Your task to perform on an android device: Add razer thresher to the cart on amazon, then select checkout. Image 0: 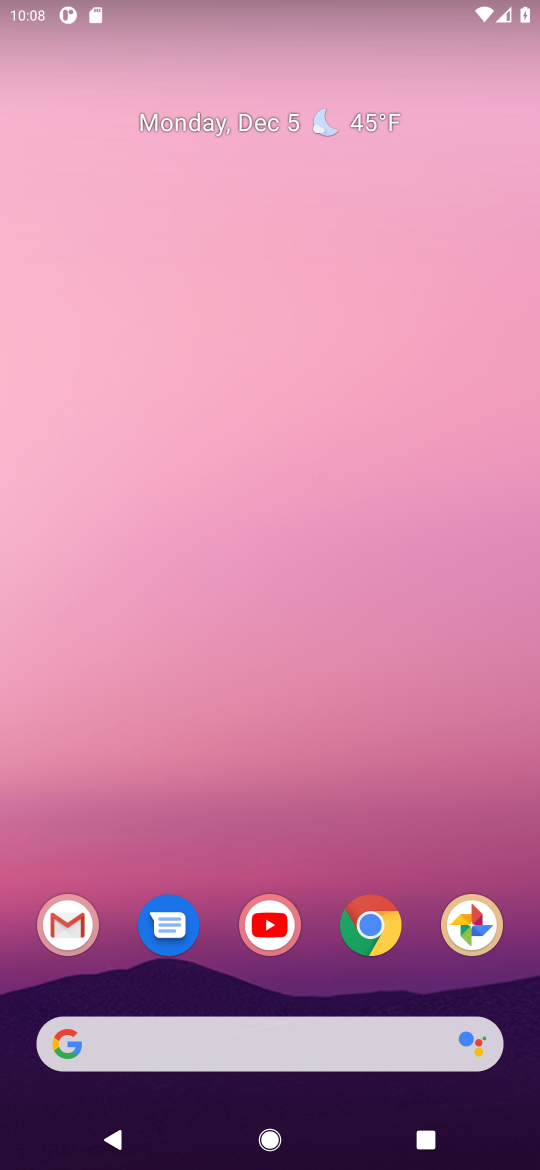
Step 0: click (368, 933)
Your task to perform on an android device: Add razer thresher to the cart on amazon, then select checkout. Image 1: 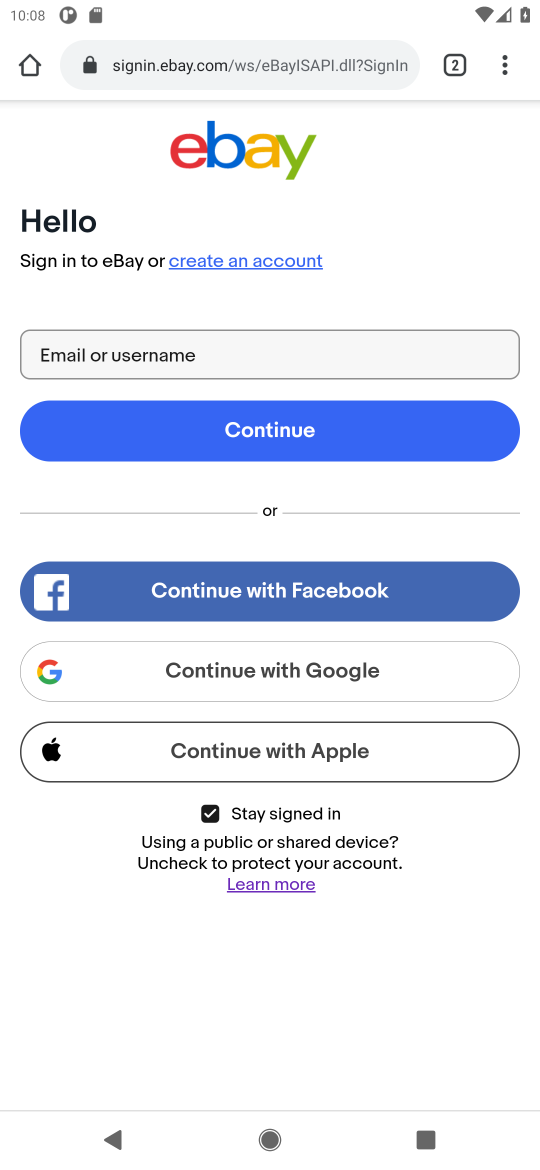
Step 1: click (215, 64)
Your task to perform on an android device: Add razer thresher to the cart on amazon, then select checkout. Image 2: 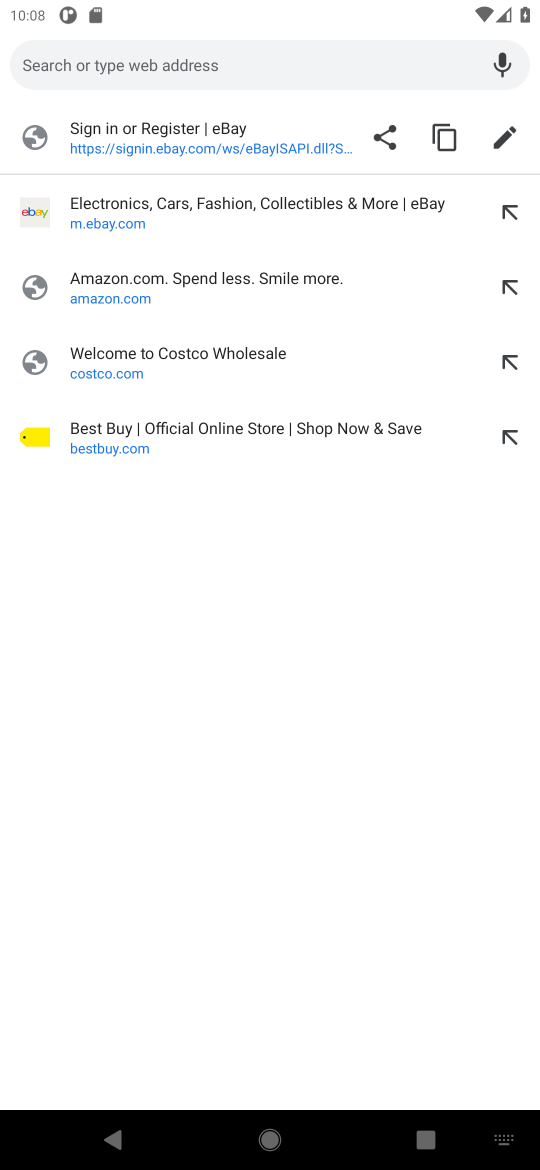
Step 2: click (81, 274)
Your task to perform on an android device: Add razer thresher to the cart on amazon, then select checkout. Image 3: 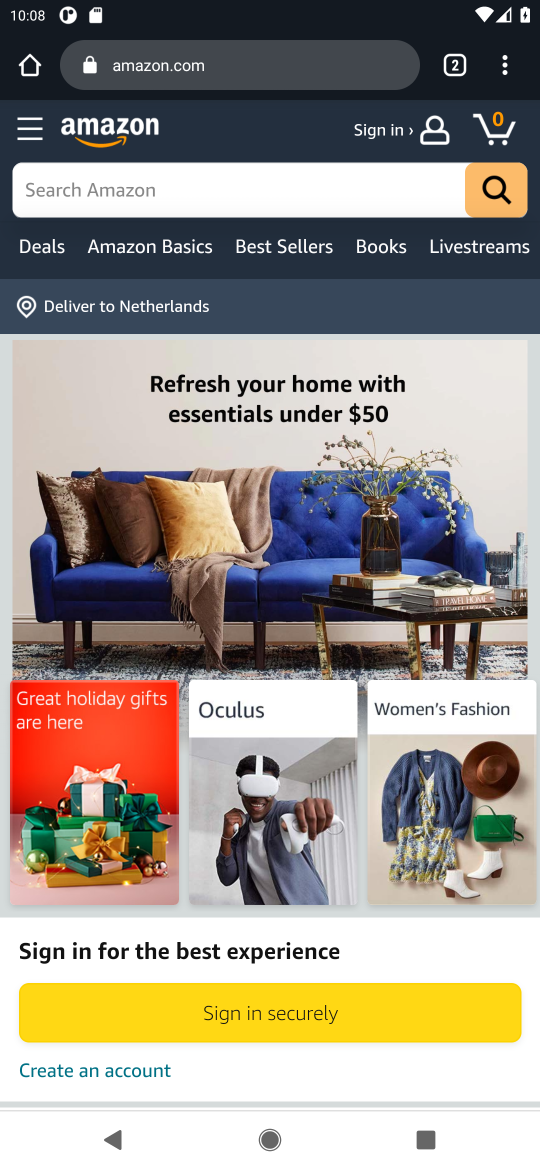
Step 3: click (111, 185)
Your task to perform on an android device: Add razer thresher to the cart on amazon, then select checkout. Image 4: 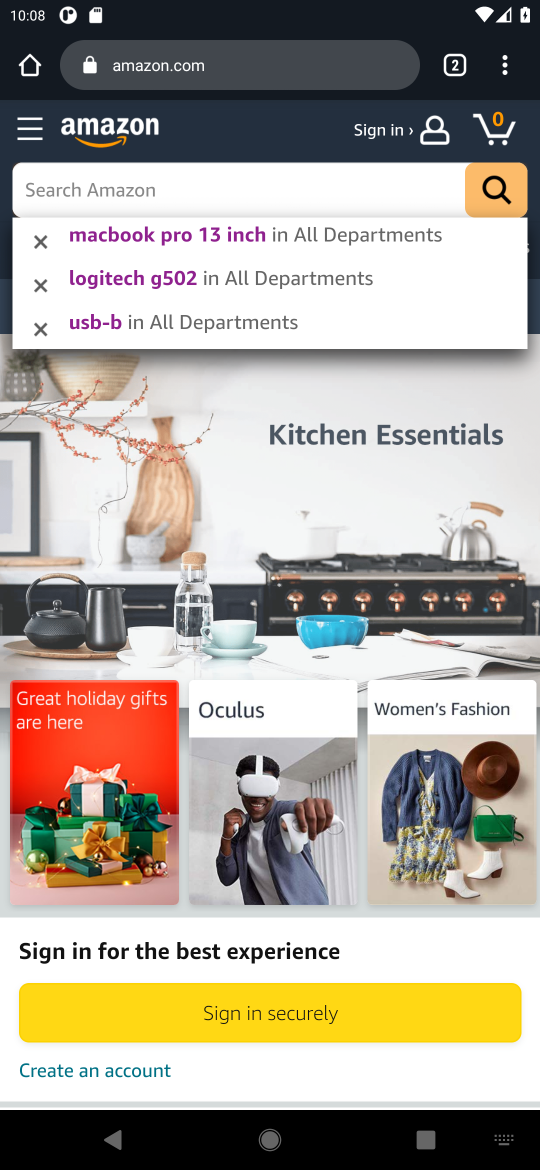
Step 4: type "razer thresher"
Your task to perform on an android device: Add razer thresher to the cart on amazon, then select checkout. Image 5: 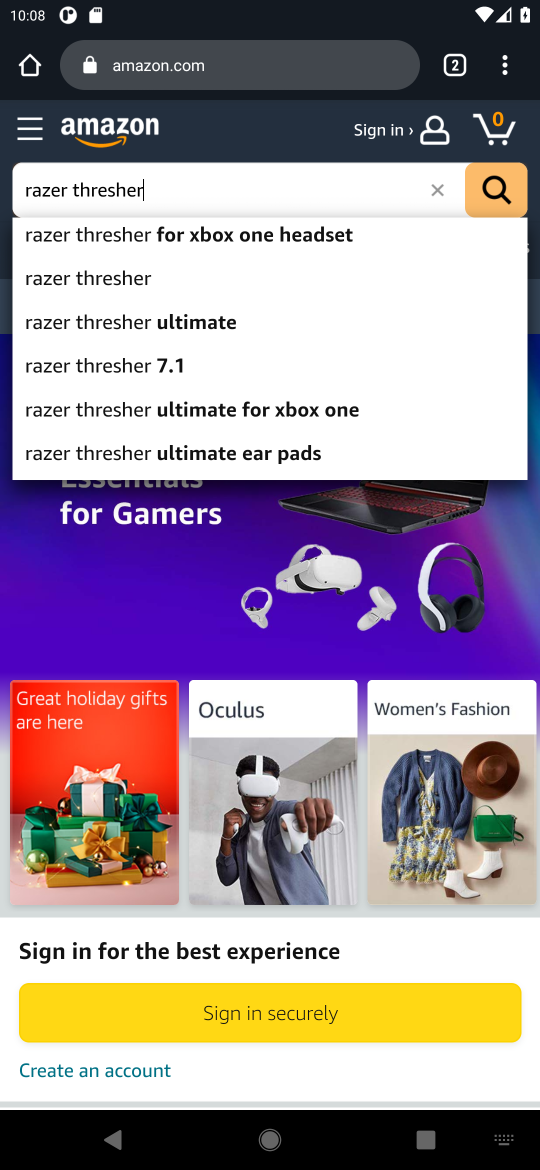
Step 5: click (68, 276)
Your task to perform on an android device: Add razer thresher to the cart on amazon, then select checkout. Image 6: 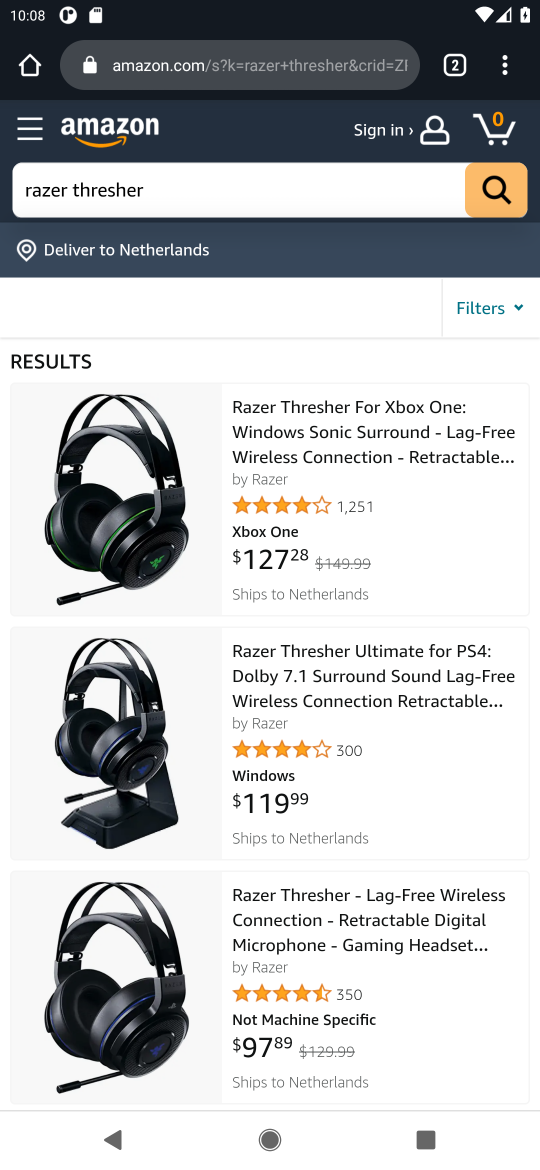
Step 6: click (314, 455)
Your task to perform on an android device: Add razer thresher to the cart on amazon, then select checkout. Image 7: 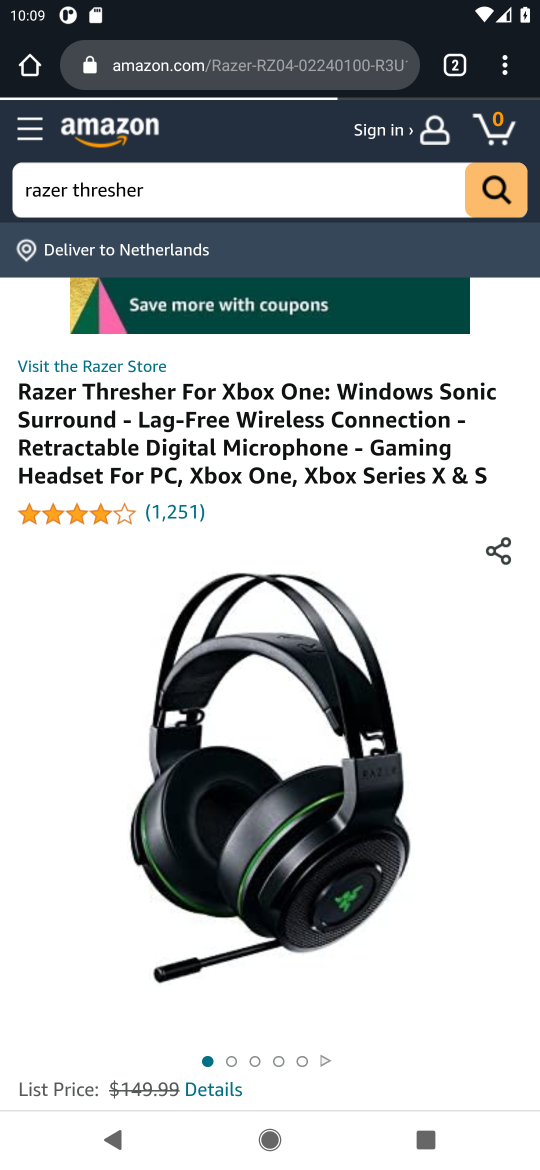
Step 7: drag from (271, 728) to (279, 318)
Your task to perform on an android device: Add razer thresher to the cart on amazon, then select checkout. Image 8: 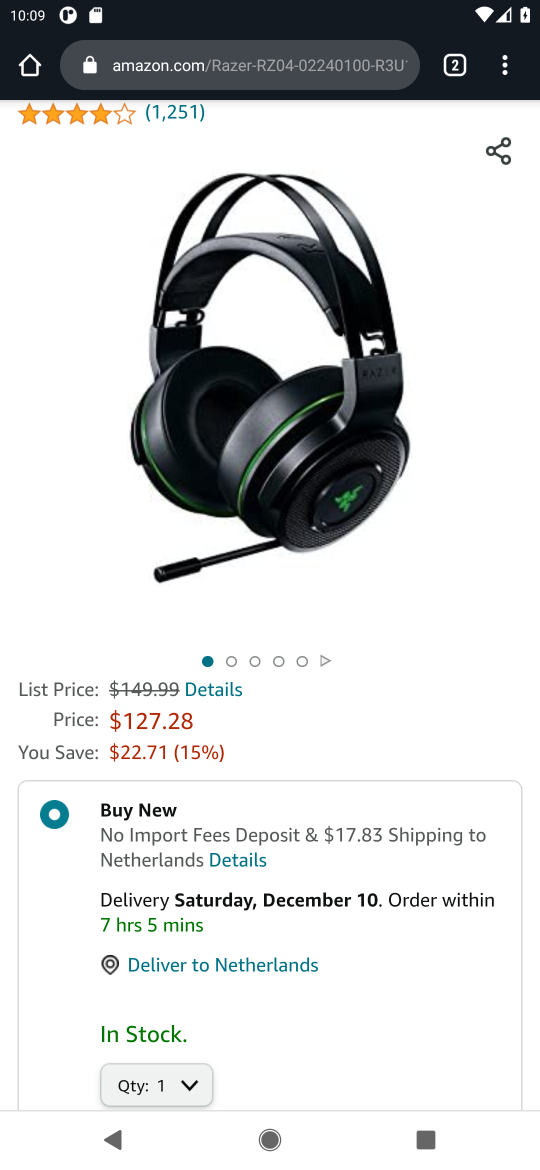
Step 8: drag from (233, 750) to (246, 342)
Your task to perform on an android device: Add razer thresher to the cart on amazon, then select checkout. Image 9: 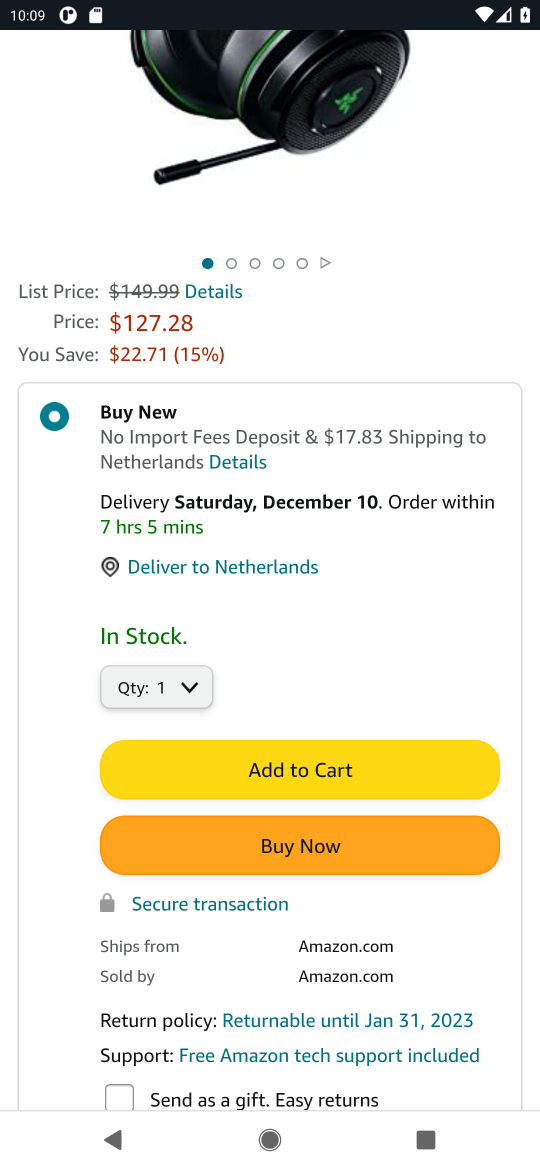
Step 9: click (263, 769)
Your task to perform on an android device: Add razer thresher to the cart on amazon, then select checkout. Image 10: 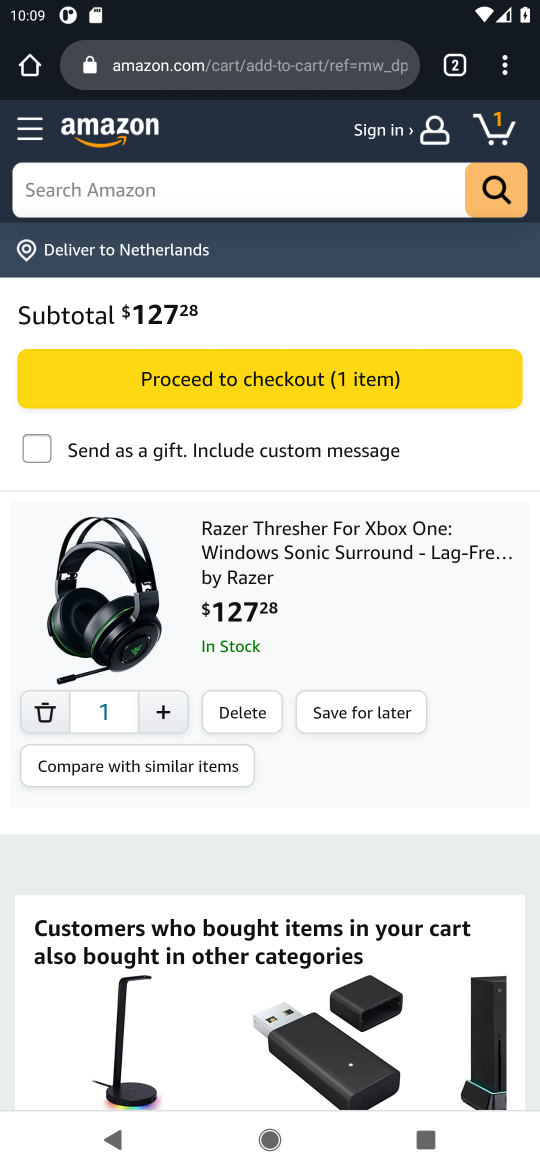
Step 10: click (237, 378)
Your task to perform on an android device: Add razer thresher to the cart on amazon, then select checkout. Image 11: 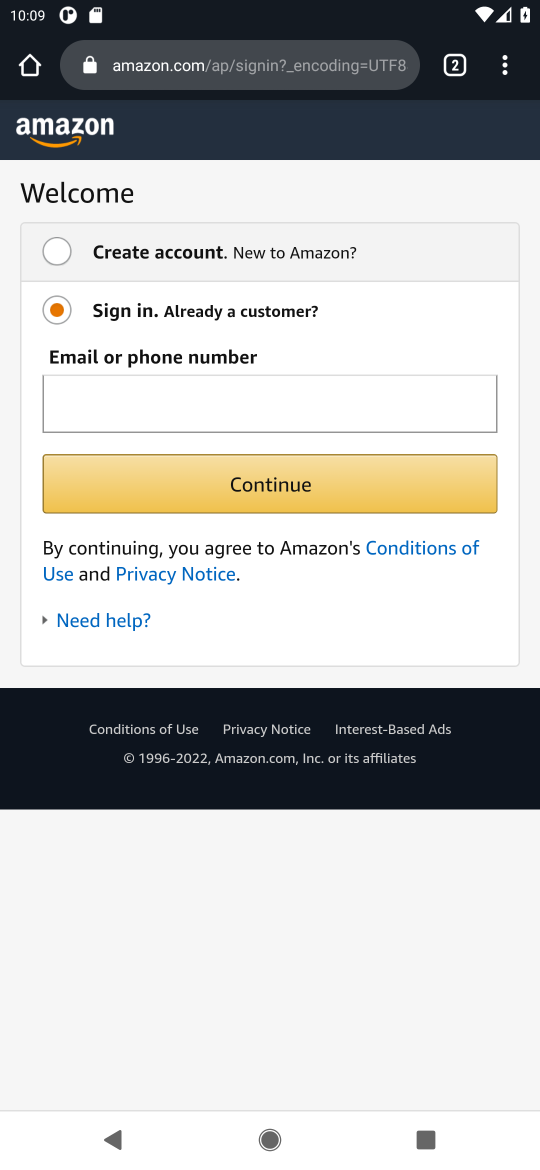
Step 11: task complete